Your task to perform on an android device: open device folders in google photos Image 0: 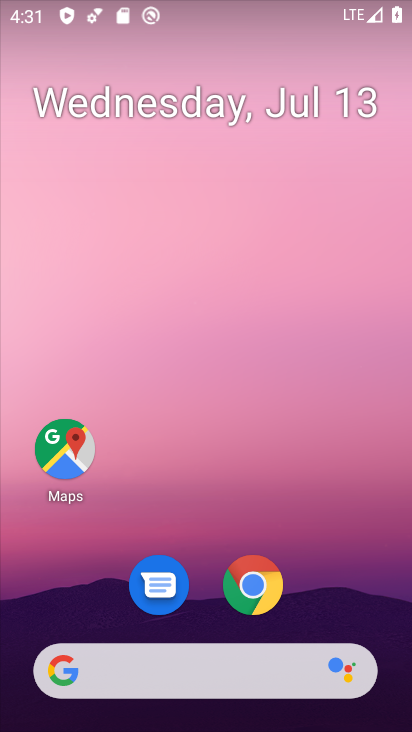
Step 0: drag from (321, 594) to (372, 35)
Your task to perform on an android device: open device folders in google photos Image 1: 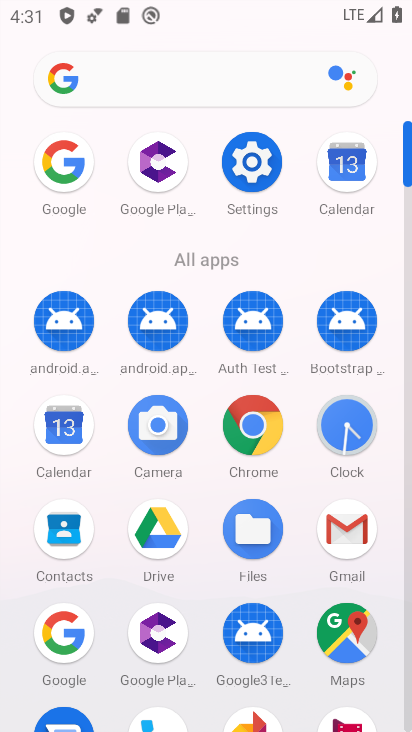
Step 1: drag from (208, 554) to (224, 261)
Your task to perform on an android device: open device folders in google photos Image 2: 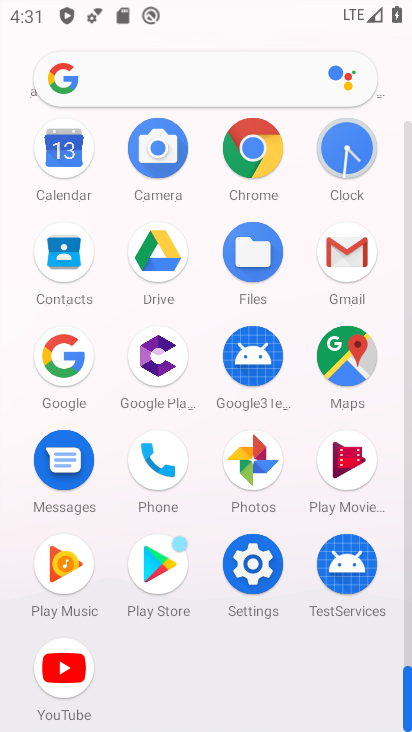
Step 2: click (258, 450)
Your task to perform on an android device: open device folders in google photos Image 3: 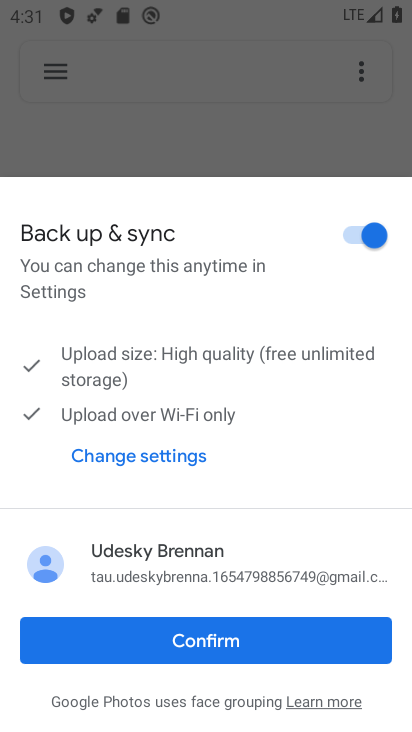
Step 3: click (52, 70)
Your task to perform on an android device: open device folders in google photos Image 4: 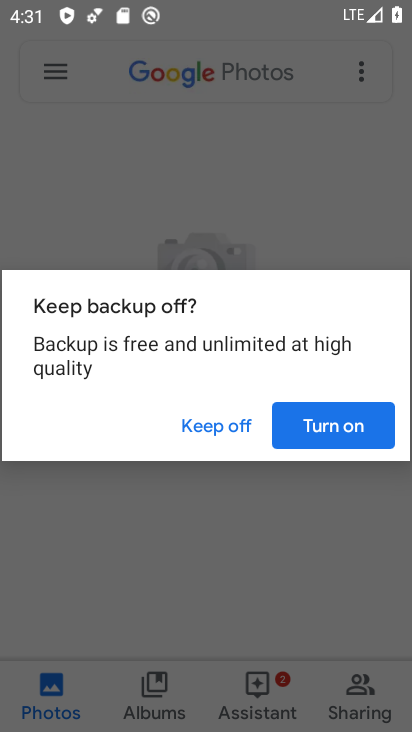
Step 4: click (292, 436)
Your task to perform on an android device: open device folders in google photos Image 5: 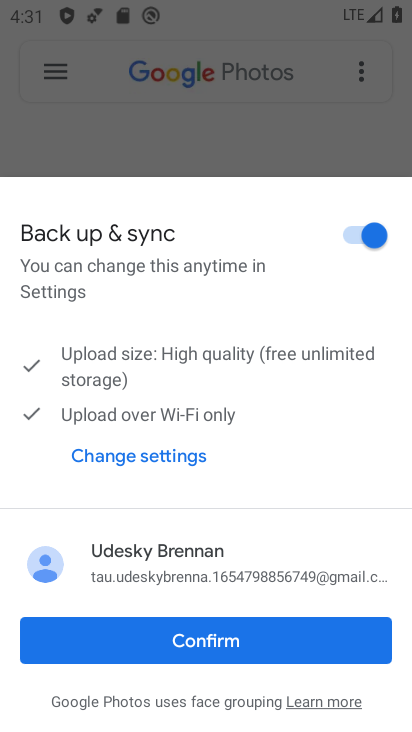
Step 5: click (292, 640)
Your task to perform on an android device: open device folders in google photos Image 6: 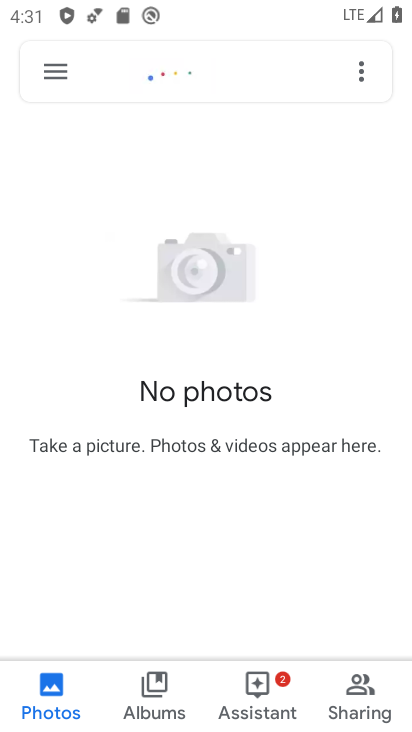
Step 6: click (52, 67)
Your task to perform on an android device: open device folders in google photos Image 7: 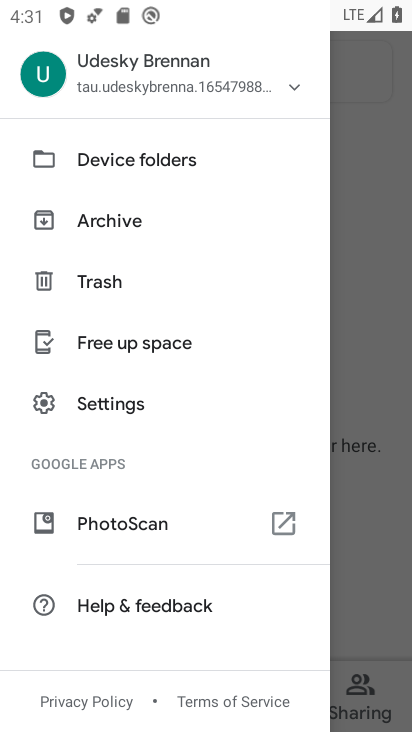
Step 7: click (101, 160)
Your task to perform on an android device: open device folders in google photos Image 8: 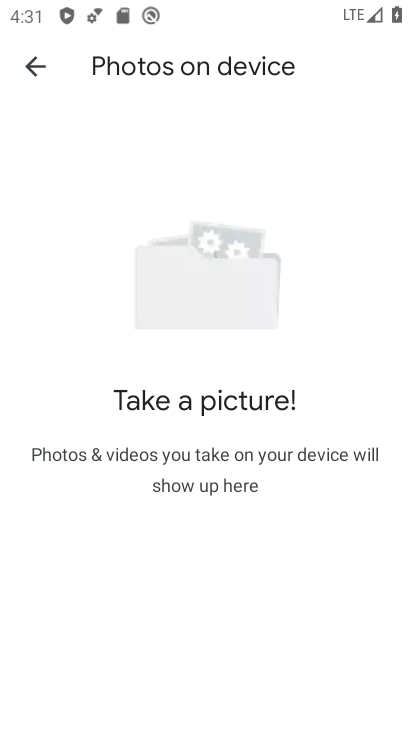
Step 8: task complete